Your task to perform on an android device: Open calendar and show me the second week of next month Image 0: 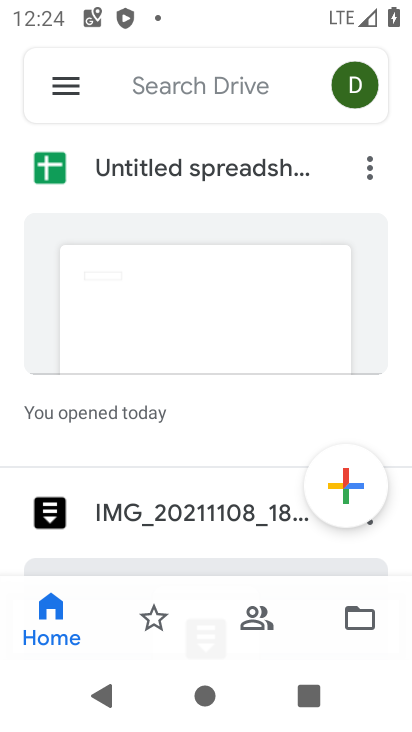
Step 0: press home button
Your task to perform on an android device: Open calendar and show me the second week of next month Image 1: 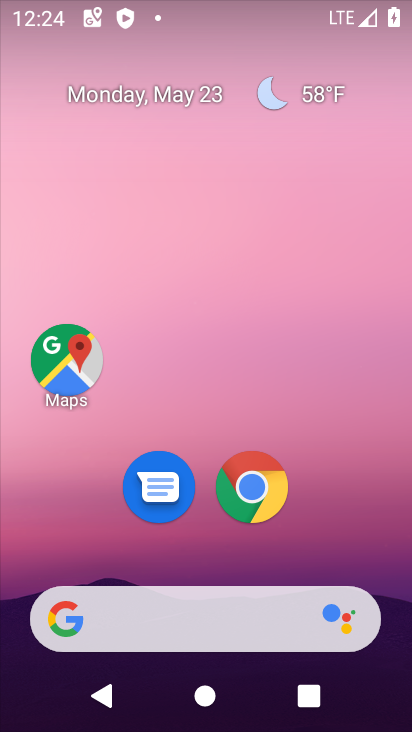
Step 1: drag from (394, 626) to (340, 114)
Your task to perform on an android device: Open calendar and show me the second week of next month Image 2: 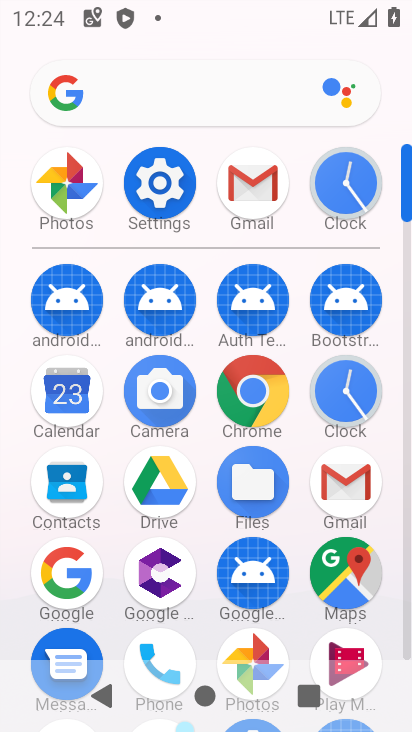
Step 2: click (410, 645)
Your task to perform on an android device: Open calendar and show me the second week of next month Image 3: 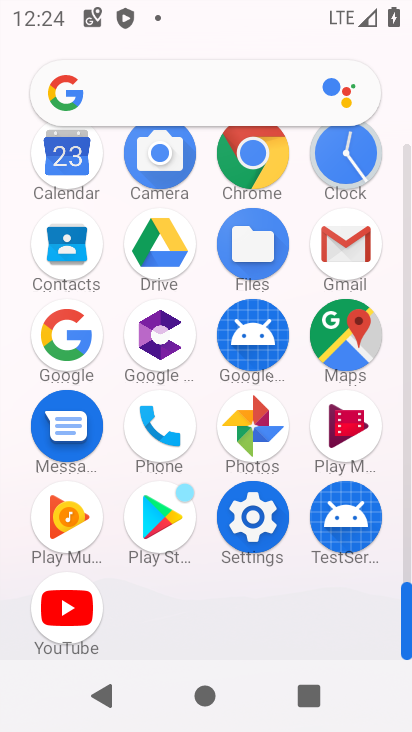
Step 3: click (63, 150)
Your task to perform on an android device: Open calendar and show me the second week of next month Image 4: 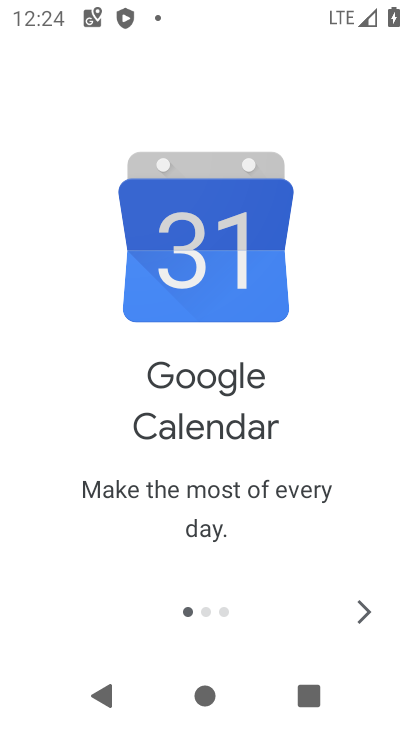
Step 4: click (364, 613)
Your task to perform on an android device: Open calendar and show me the second week of next month Image 5: 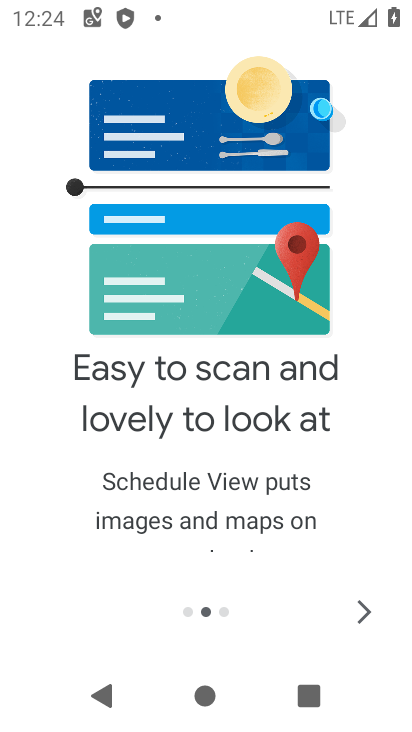
Step 5: click (364, 613)
Your task to perform on an android device: Open calendar and show me the second week of next month Image 6: 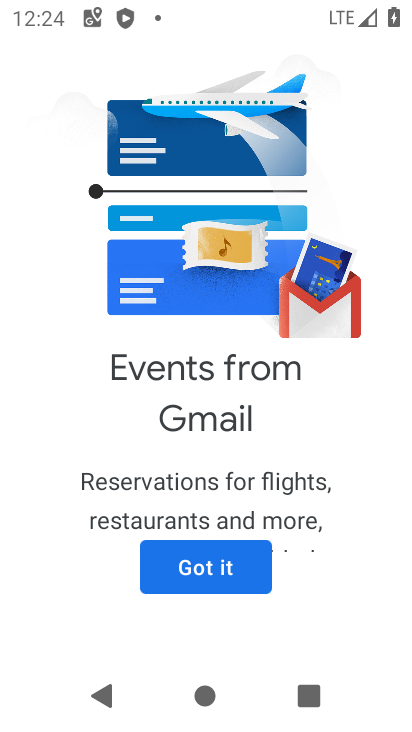
Step 6: click (194, 562)
Your task to perform on an android device: Open calendar and show me the second week of next month Image 7: 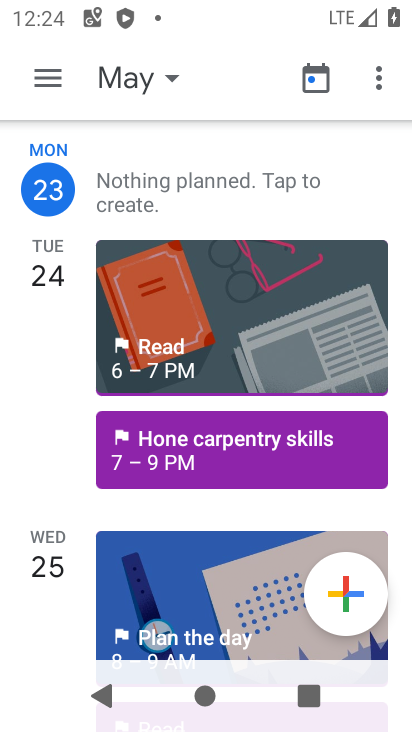
Step 7: click (50, 81)
Your task to perform on an android device: Open calendar and show me the second week of next month Image 8: 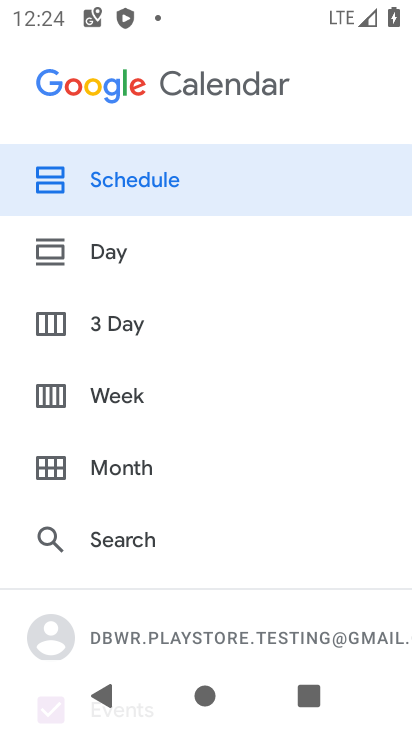
Step 8: click (120, 395)
Your task to perform on an android device: Open calendar and show me the second week of next month Image 9: 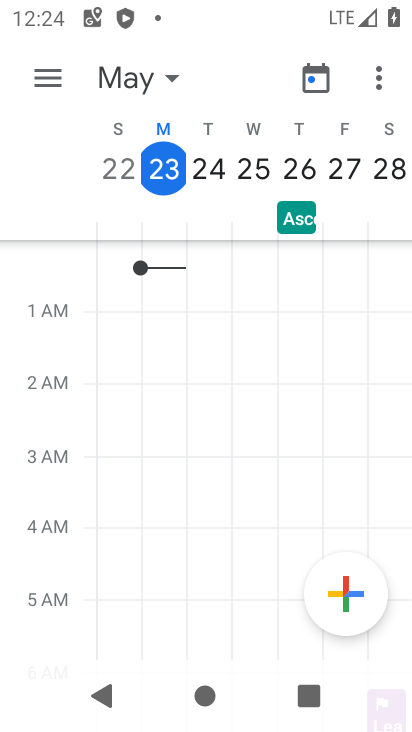
Step 9: click (173, 78)
Your task to perform on an android device: Open calendar and show me the second week of next month Image 10: 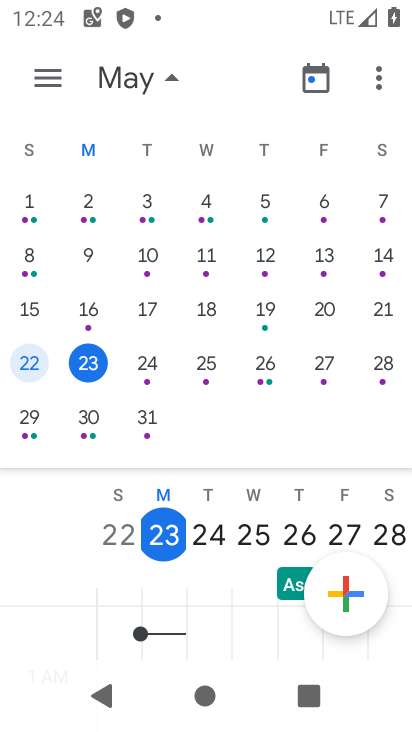
Step 10: drag from (386, 332) to (11, 274)
Your task to perform on an android device: Open calendar and show me the second week of next month Image 11: 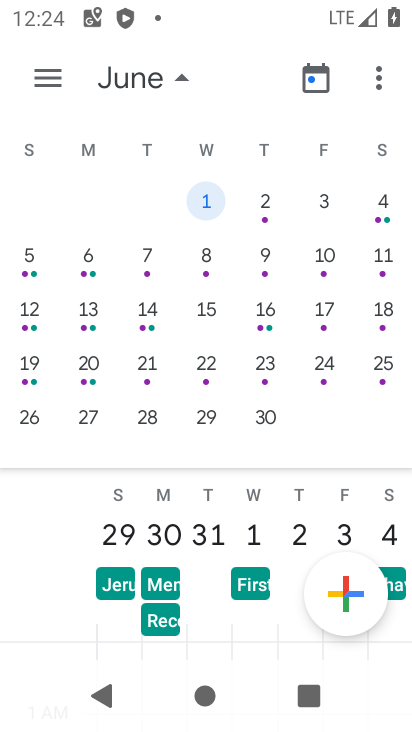
Step 11: click (32, 256)
Your task to perform on an android device: Open calendar and show me the second week of next month Image 12: 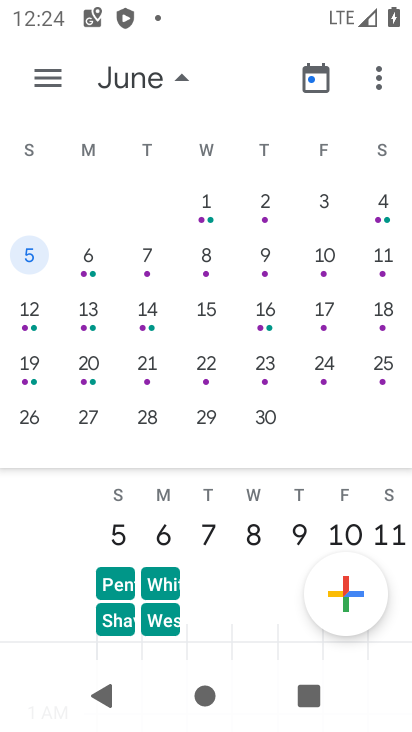
Step 12: task complete